Your task to perform on an android device: change the clock style Image 0: 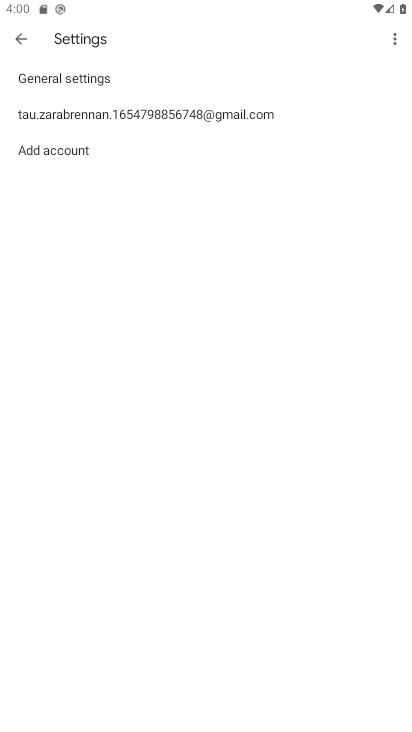
Step 0: press home button
Your task to perform on an android device: change the clock style Image 1: 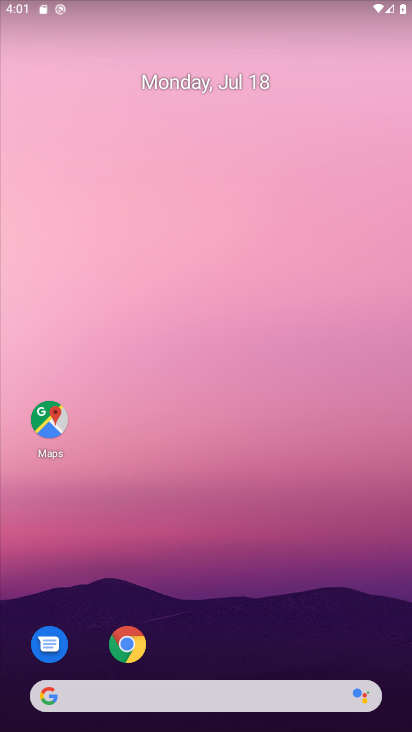
Step 1: drag from (252, 656) to (94, 18)
Your task to perform on an android device: change the clock style Image 2: 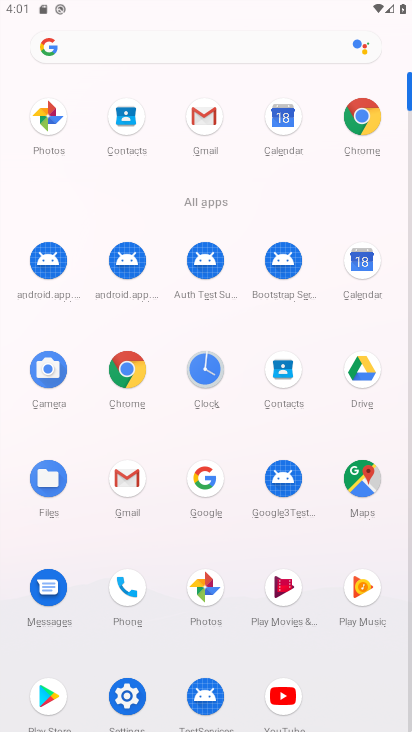
Step 2: click (210, 374)
Your task to perform on an android device: change the clock style Image 3: 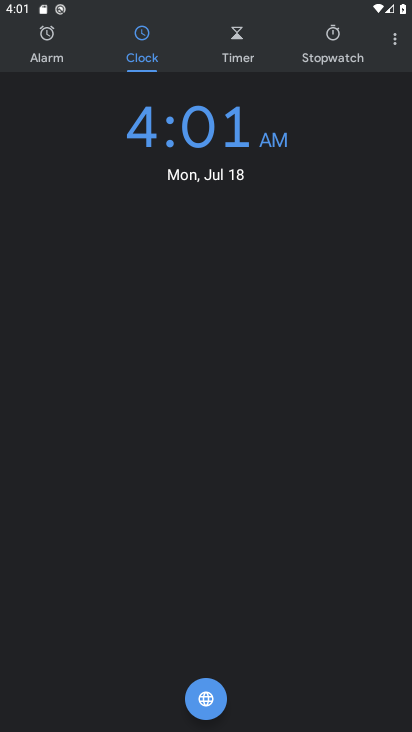
Step 3: click (406, 42)
Your task to perform on an android device: change the clock style Image 4: 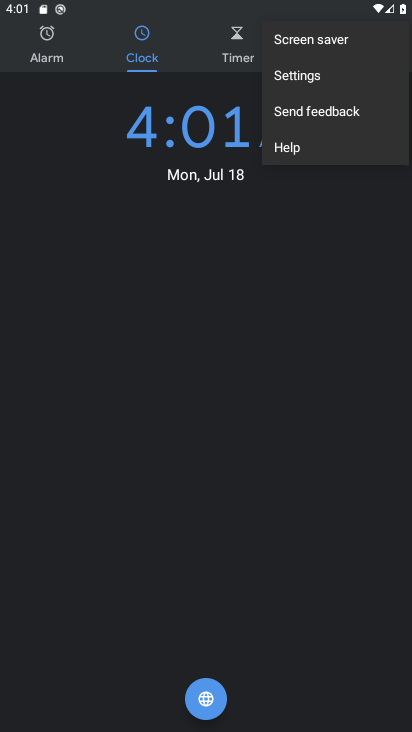
Step 4: click (321, 90)
Your task to perform on an android device: change the clock style Image 5: 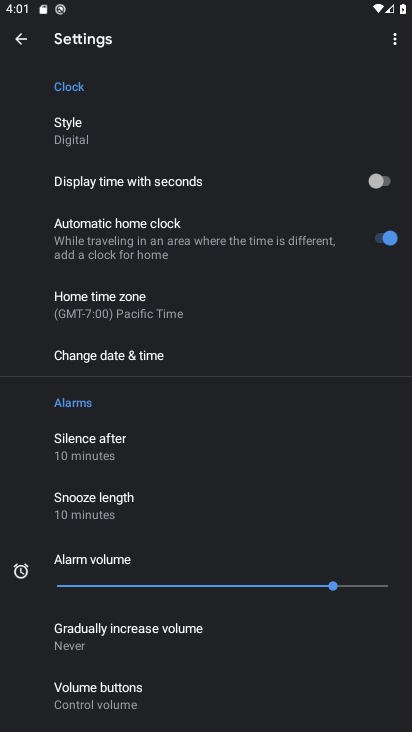
Step 5: click (191, 143)
Your task to perform on an android device: change the clock style Image 6: 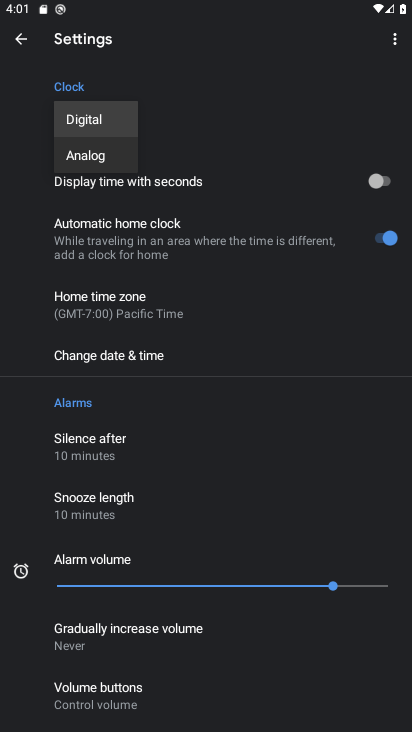
Step 6: click (109, 164)
Your task to perform on an android device: change the clock style Image 7: 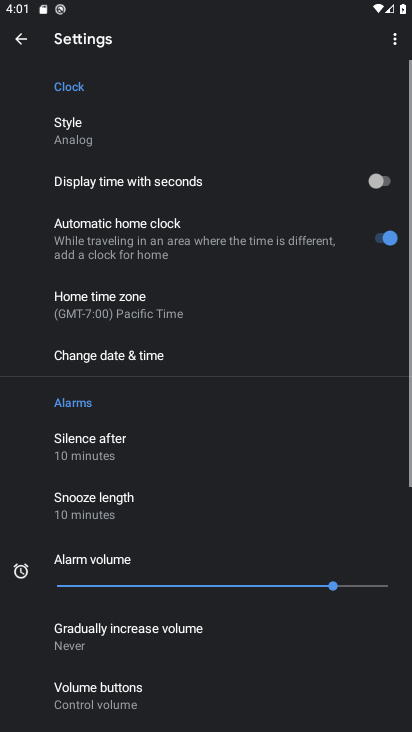
Step 7: task complete